Your task to perform on an android device: Open display settings Image 0: 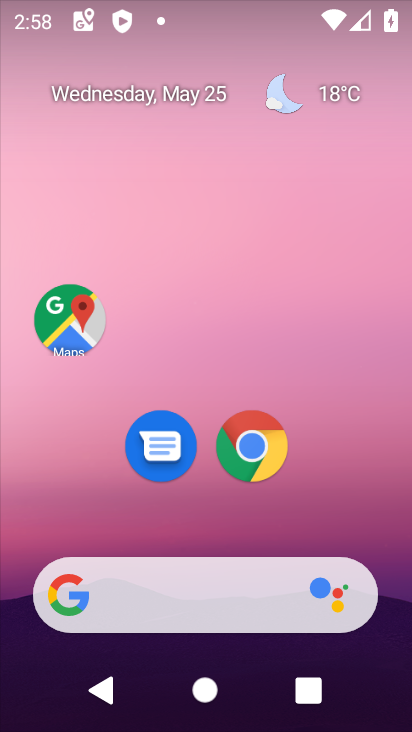
Step 0: drag from (220, 490) to (233, 125)
Your task to perform on an android device: Open display settings Image 1: 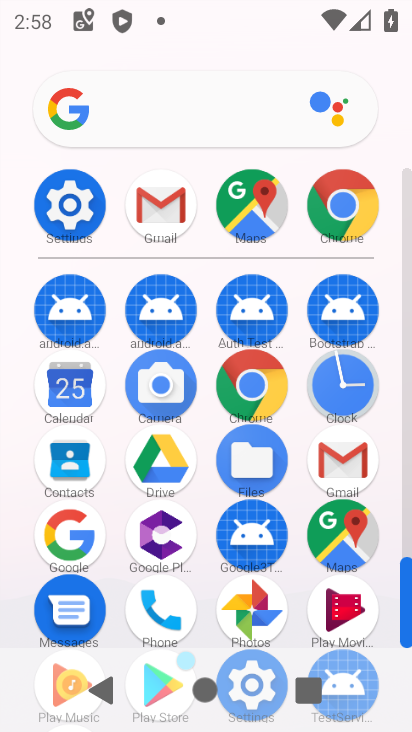
Step 1: click (90, 213)
Your task to perform on an android device: Open display settings Image 2: 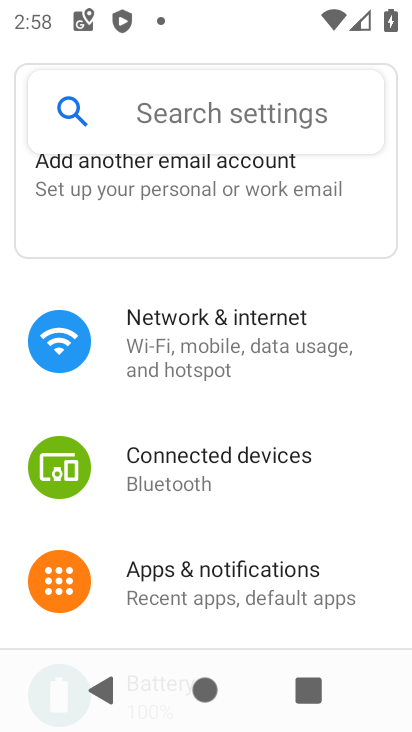
Step 2: drag from (192, 554) to (174, 161)
Your task to perform on an android device: Open display settings Image 3: 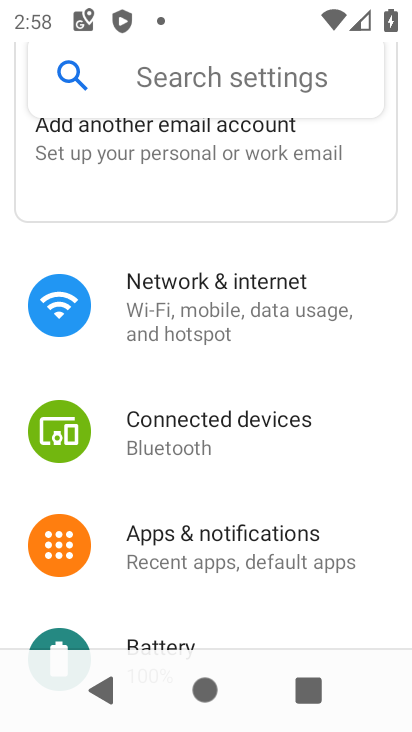
Step 3: drag from (219, 531) to (161, 52)
Your task to perform on an android device: Open display settings Image 4: 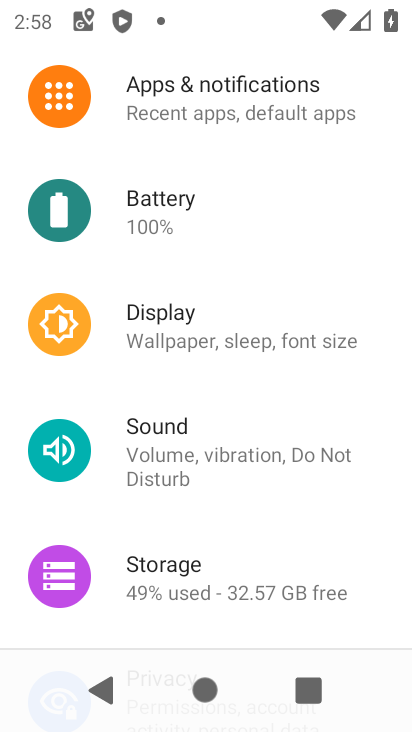
Step 4: click (188, 316)
Your task to perform on an android device: Open display settings Image 5: 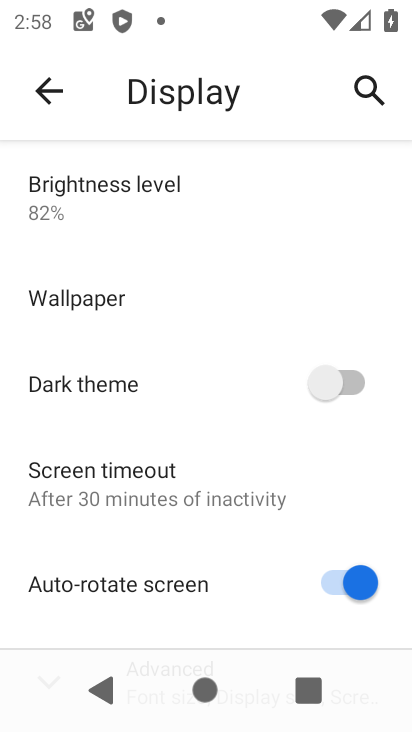
Step 5: task complete